Your task to perform on an android device: Go to network settings Image 0: 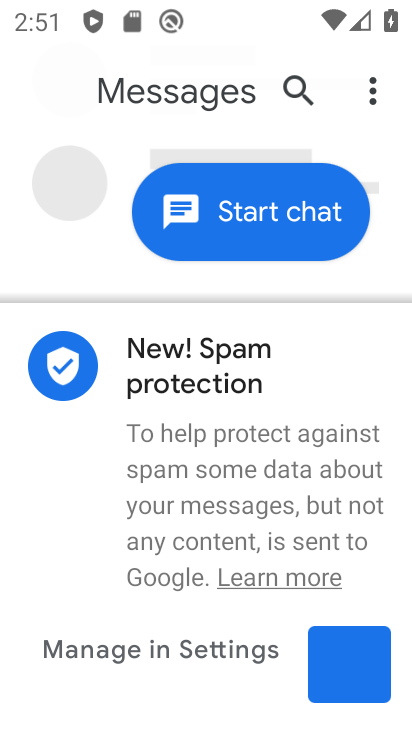
Step 0: press home button
Your task to perform on an android device: Go to network settings Image 1: 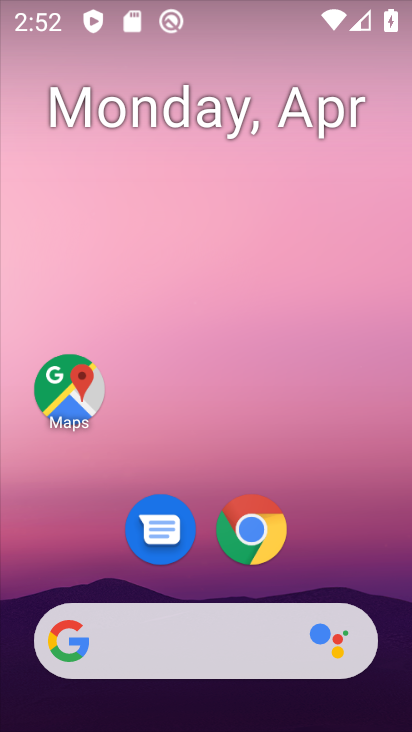
Step 1: drag from (265, 714) to (405, 93)
Your task to perform on an android device: Go to network settings Image 2: 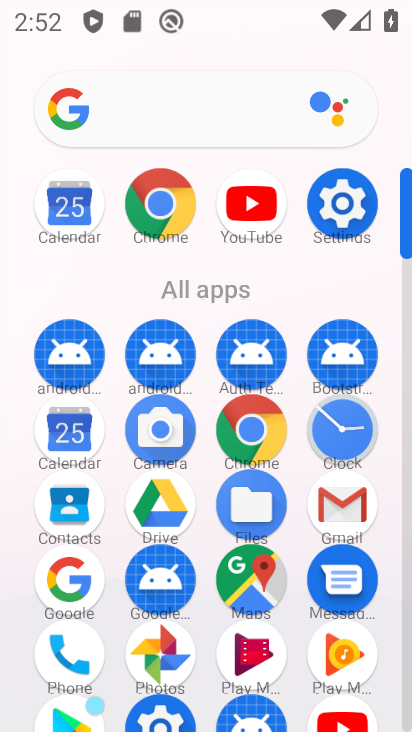
Step 2: click (362, 195)
Your task to perform on an android device: Go to network settings Image 3: 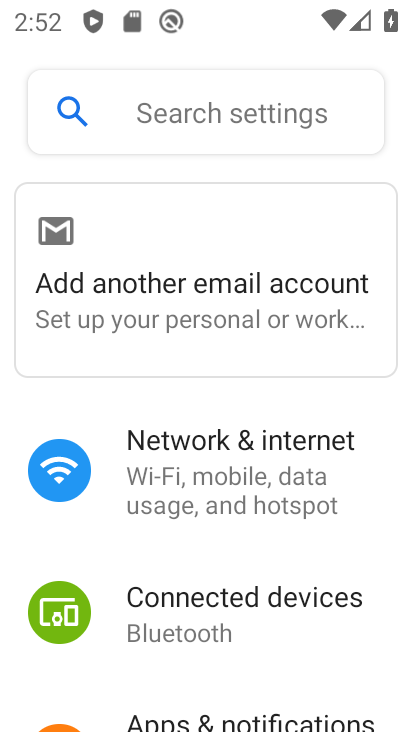
Step 3: click (219, 470)
Your task to perform on an android device: Go to network settings Image 4: 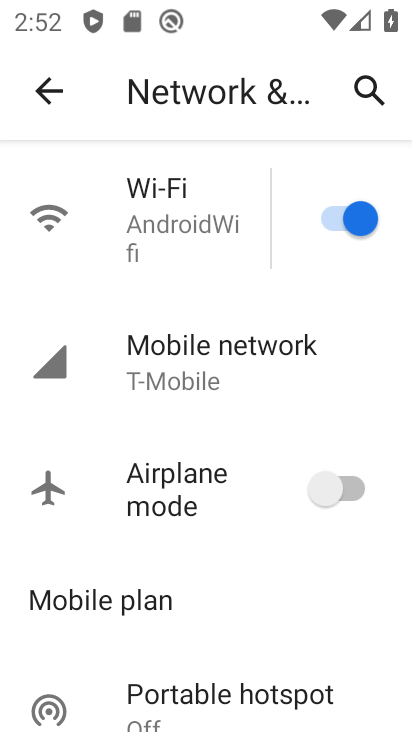
Step 4: click (200, 377)
Your task to perform on an android device: Go to network settings Image 5: 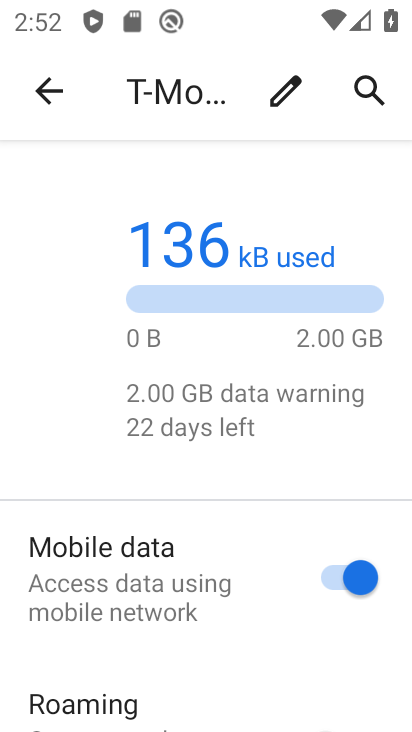
Step 5: task complete